Your task to perform on an android device: toggle show notifications on the lock screen Image 0: 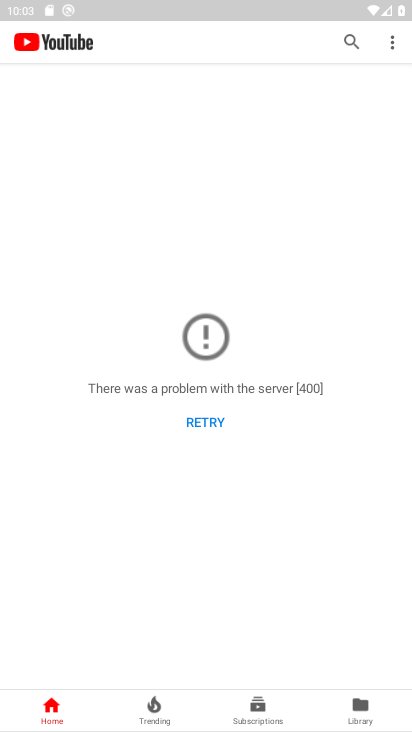
Step 0: press home button
Your task to perform on an android device: toggle show notifications on the lock screen Image 1: 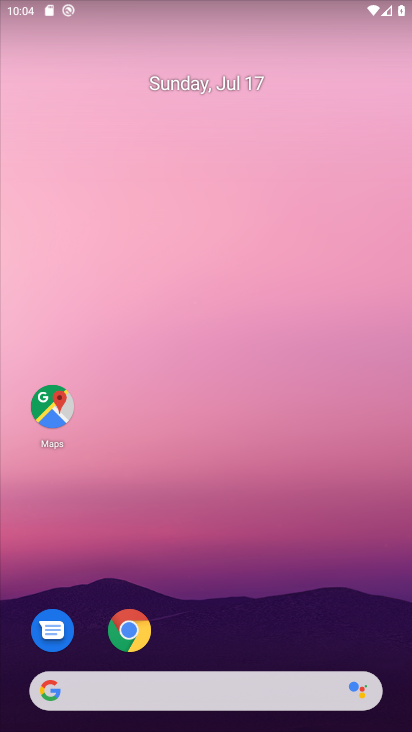
Step 1: drag from (200, 648) to (122, 1)
Your task to perform on an android device: toggle show notifications on the lock screen Image 2: 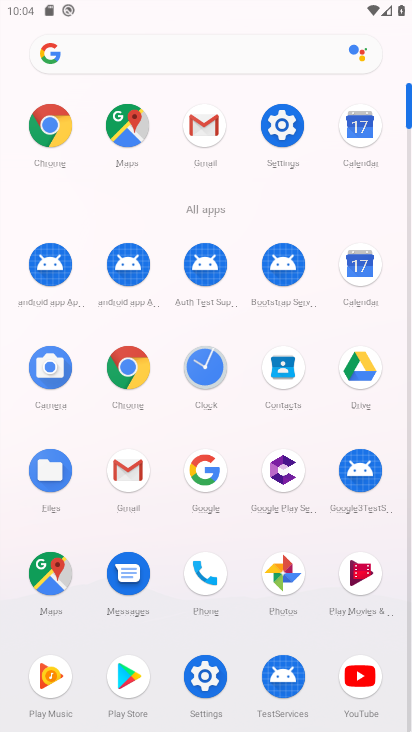
Step 2: click (204, 679)
Your task to perform on an android device: toggle show notifications on the lock screen Image 3: 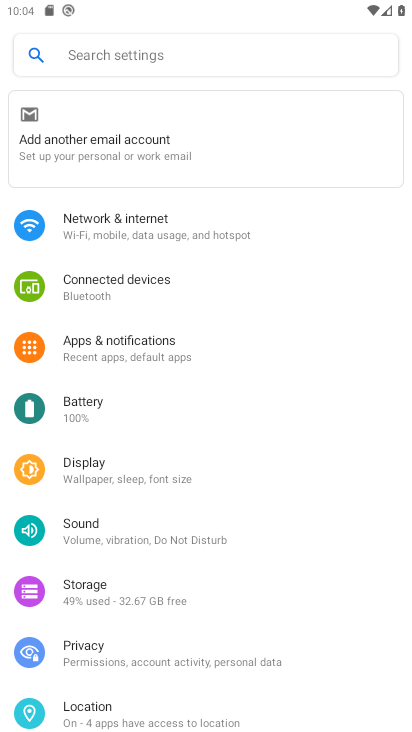
Step 3: click (140, 347)
Your task to perform on an android device: toggle show notifications on the lock screen Image 4: 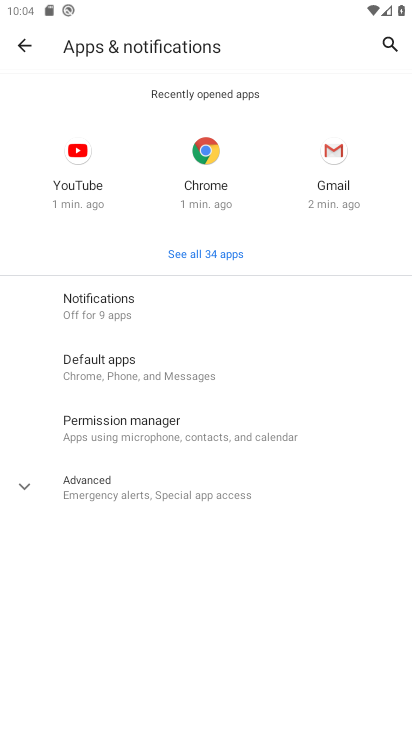
Step 4: click (104, 491)
Your task to perform on an android device: toggle show notifications on the lock screen Image 5: 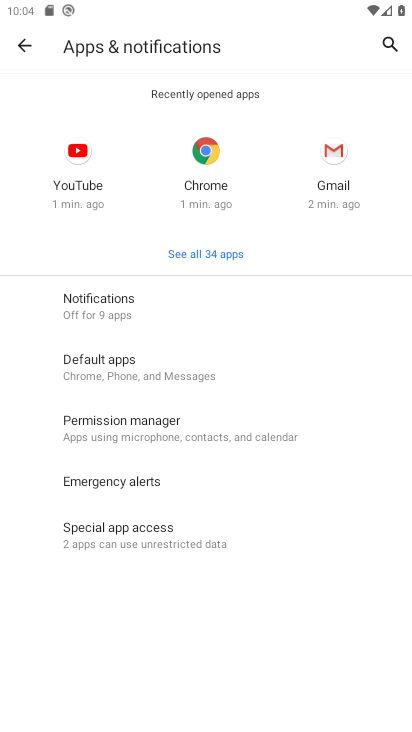
Step 5: click (109, 302)
Your task to perform on an android device: toggle show notifications on the lock screen Image 6: 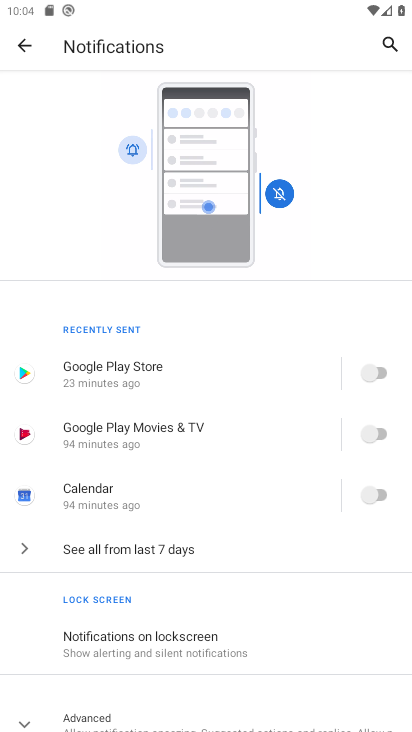
Step 6: click (105, 658)
Your task to perform on an android device: toggle show notifications on the lock screen Image 7: 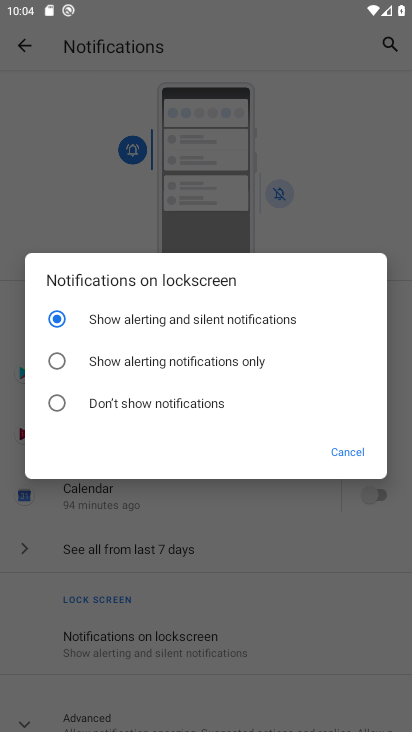
Step 7: click (94, 405)
Your task to perform on an android device: toggle show notifications on the lock screen Image 8: 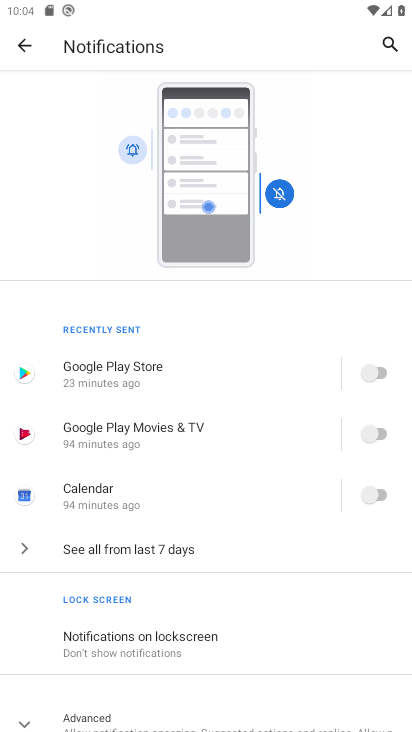
Step 8: drag from (227, 528) to (223, 239)
Your task to perform on an android device: toggle show notifications on the lock screen Image 9: 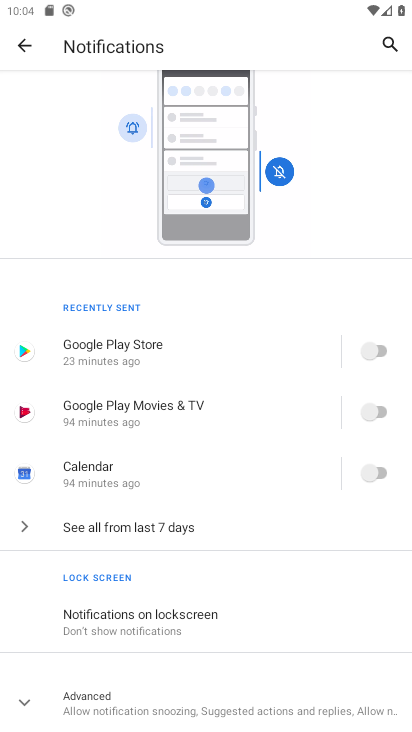
Step 9: click (133, 631)
Your task to perform on an android device: toggle show notifications on the lock screen Image 10: 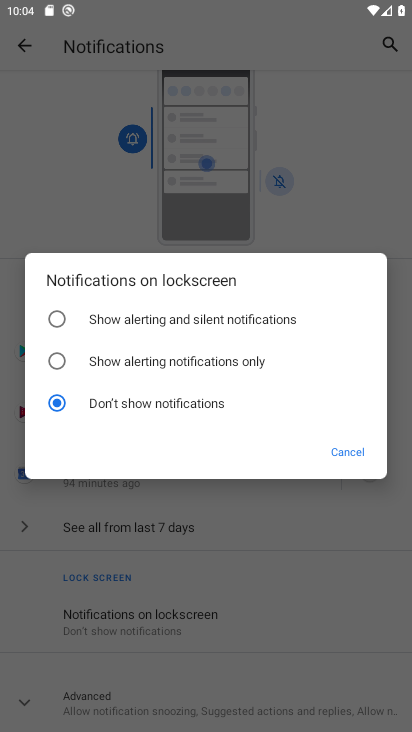
Step 10: click (172, 327)
Your task to perform on an android device: toggle show notifications on the lock screen Image 11: 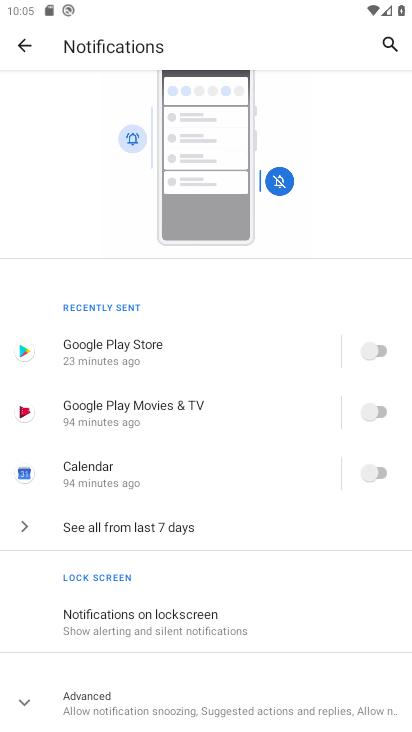
Step 11: task complete